Your task to perform on an android device: Add alienware area 51 to the cart on bestbuy Image 0: 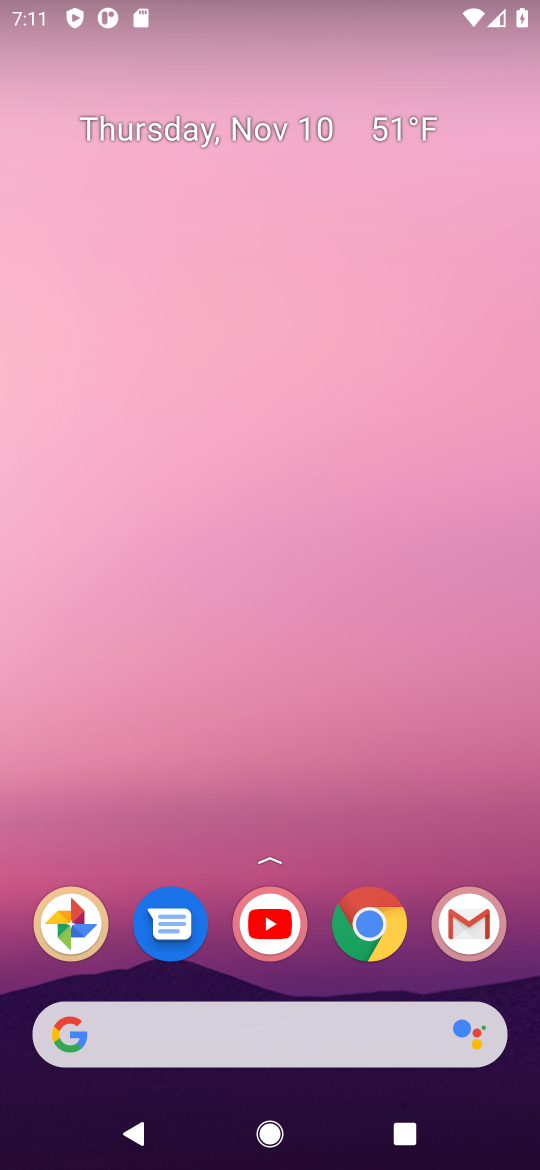
Step 0: click (377, 934)
Your task to perform on an android device: Add alienware area 51 to the cart on bestbuy Image 1: 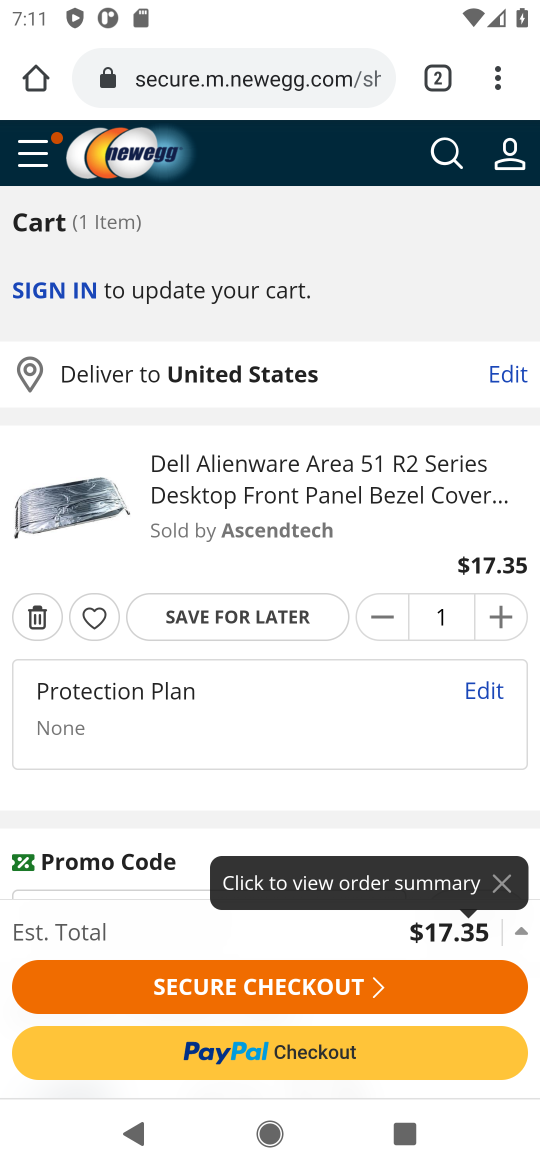
Step 1: click (224, 69)
Your task to perform on an android device: Add alienware area 51 to the cart on bestbuy Image 2: 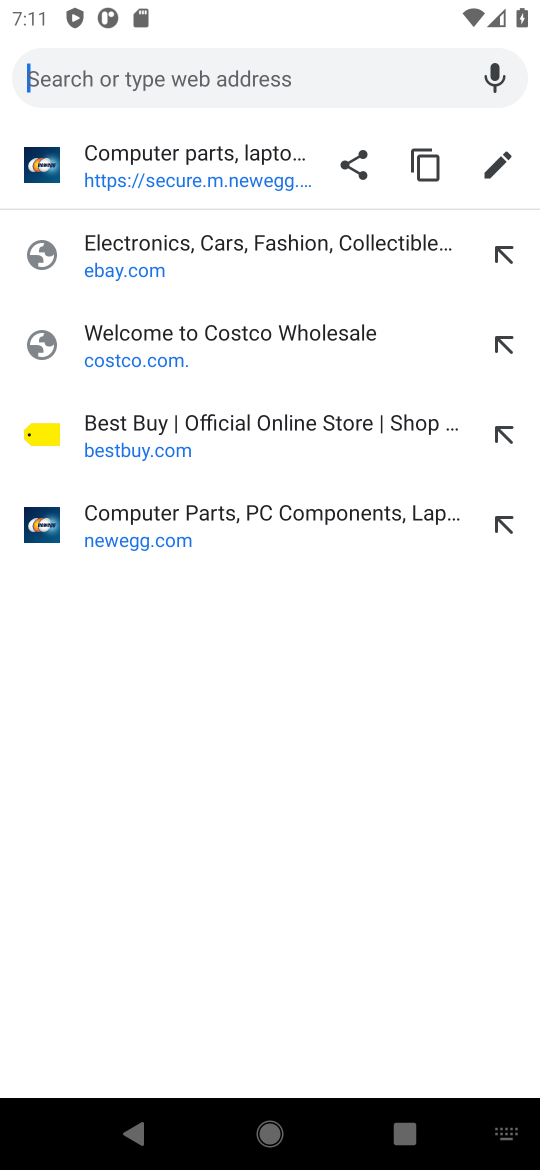
Step 2: click (128, 451)
Your task to perform on an android device: Add alienware area 51 to the cart on bestbuy Image 3: 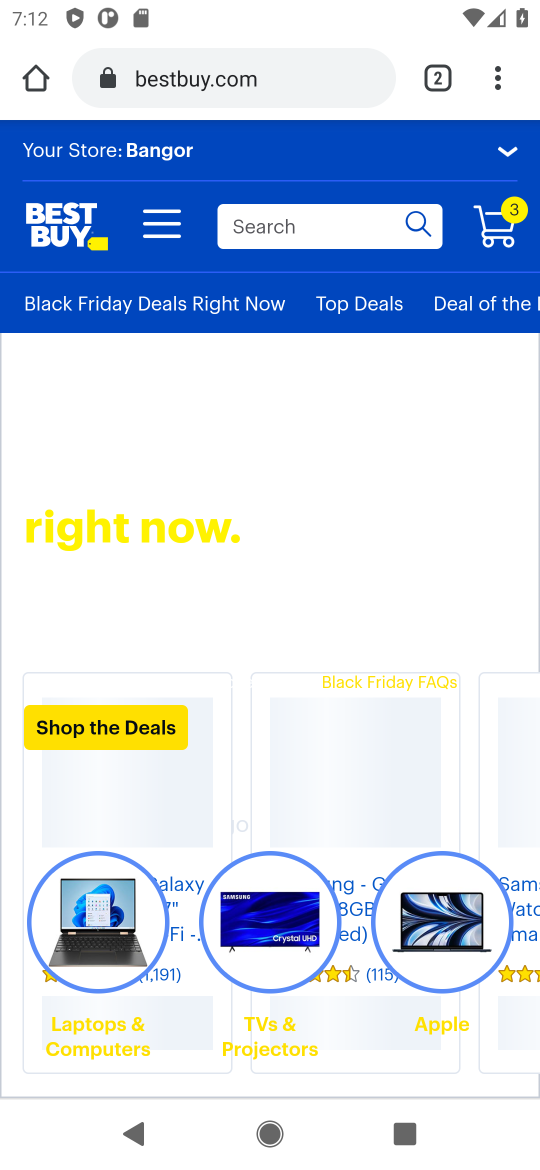
Step 3: click (242, 233)
Your task to perform on an android device: Add alienware area 51 to the cart on bestbuy Image 4: 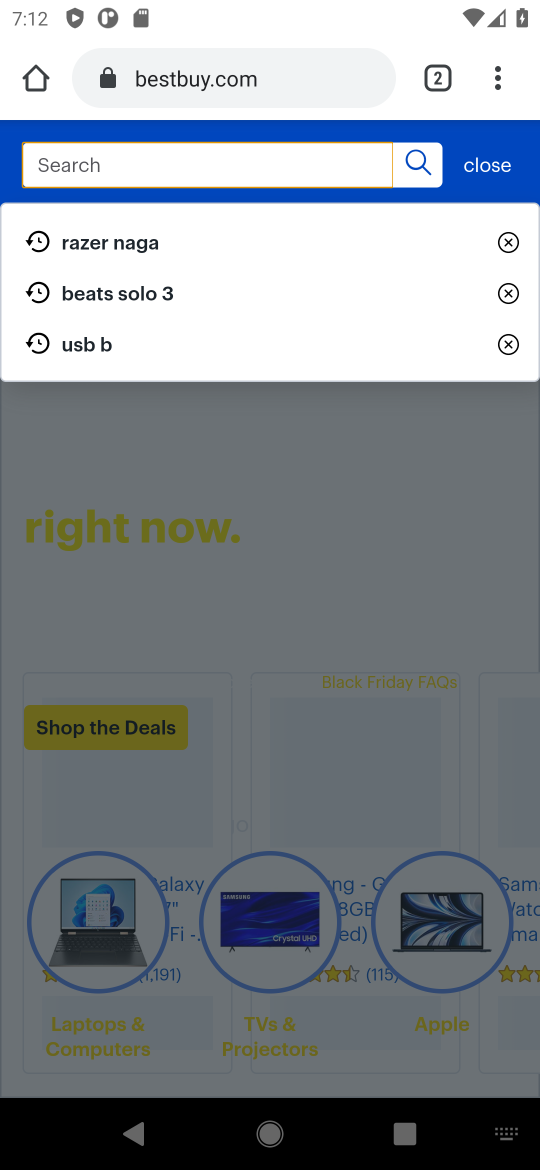
Step 4: type "alienware area 51"
Your task to perform on an android device: Add alienware area 51 to the cart on bestbuy Image 5: 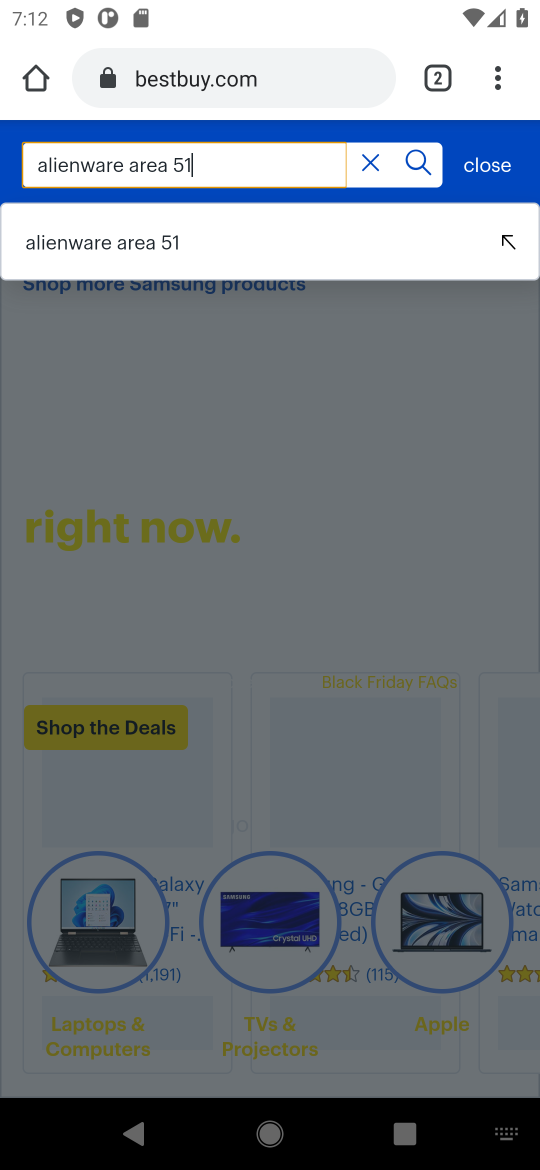
Step 5: click (92, 245)
Your task to perform on an android device: Add alienware area 51 to the cart on bestbuy Image 6: 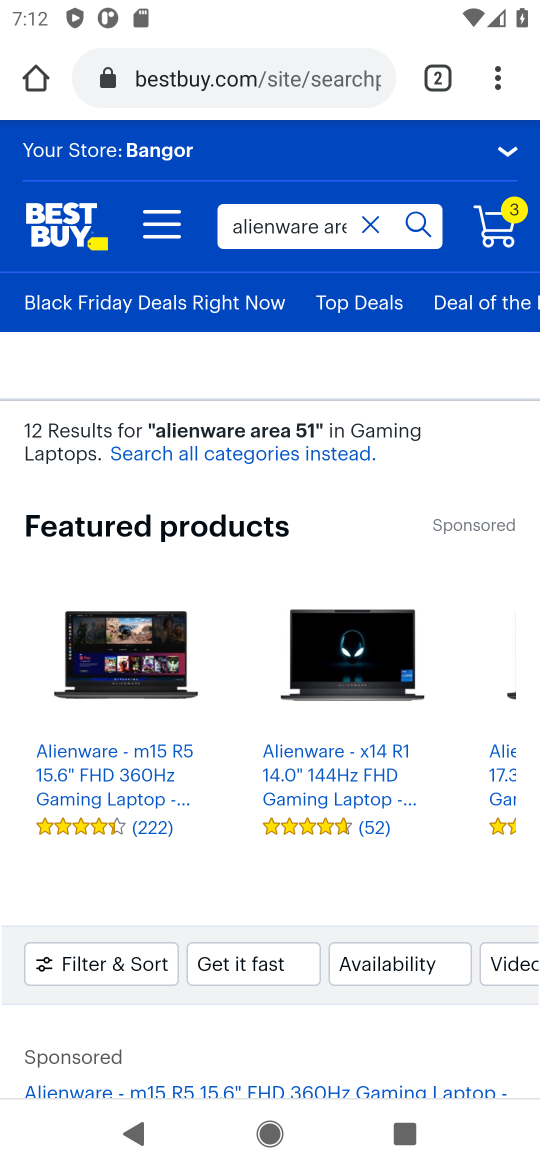
Step 6: task complete